Your task to perform on an android device: toggle priority inbox in the gmail app Image 0: 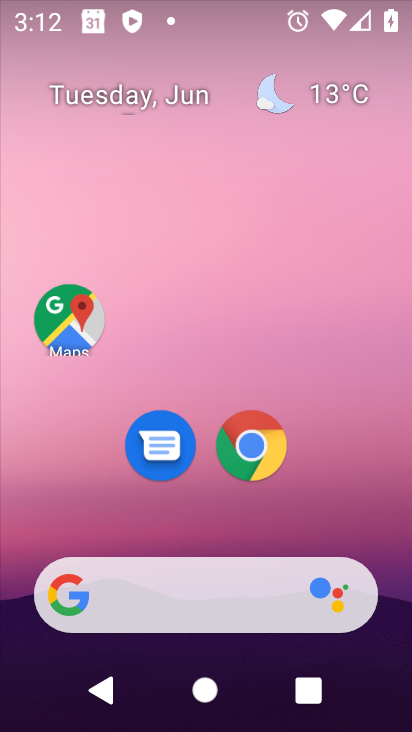
Step 0: drag from (390, 563) to (311, 31)
Your task to perform on an android device: toggle priority inbox in the gmail app Image 1: 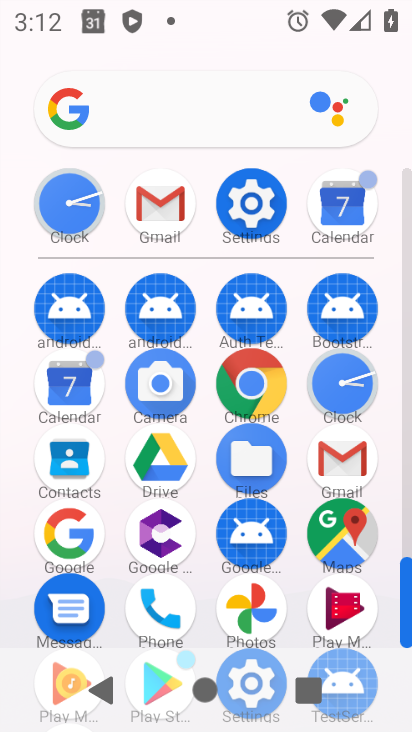
Step 1: click (340, 457)
Your task to perform on an android device: toggle priority inbox in the gmail app Image 2: 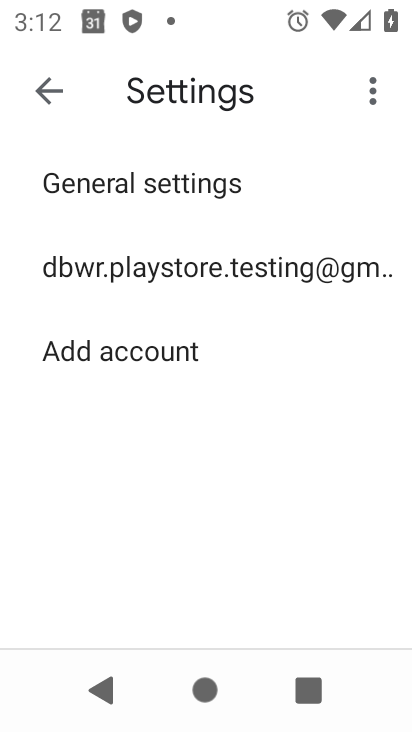
Step 2: click (215, 264)
Your task to perform on an android device: toggle priority inbox in the gmail app Image 3: 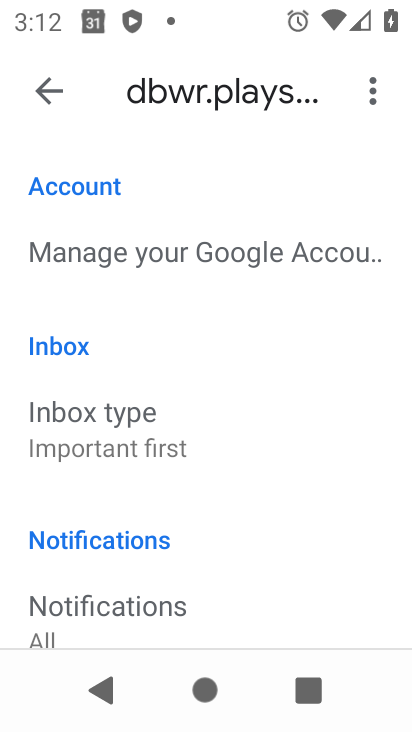
Step 3: click (107, 425)
Your task to perform on an android device: toggle priority inbox in the gmail app Image 4: 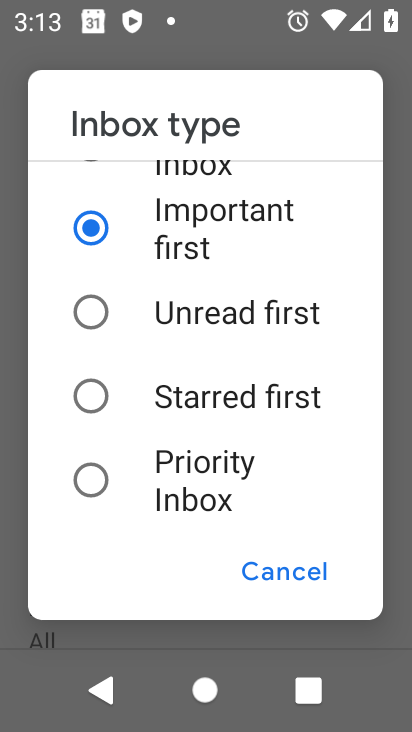
Step 4: click (75, 479)
Your task to perform on an android device: toggle priority inbox in the gmail app Image 5: 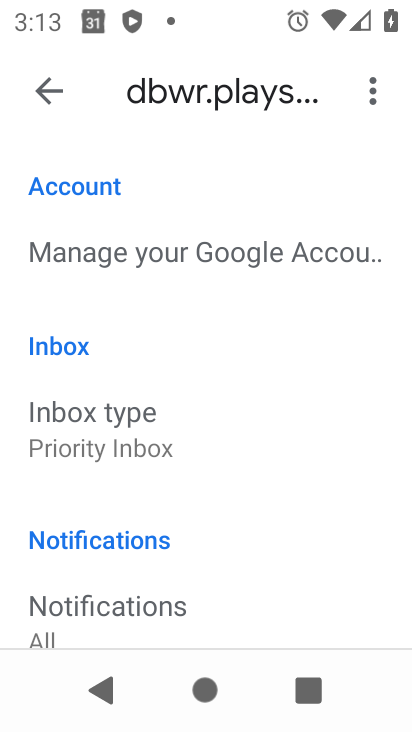
Step 5: task complete